Your task to perform on an android device: Go to Wikipedia Image 0: 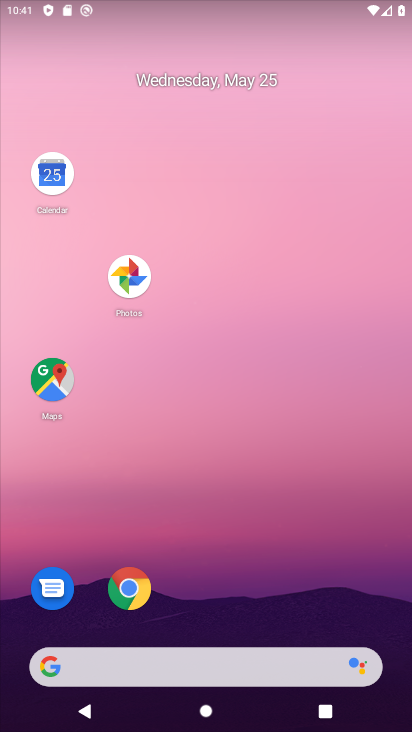
Step 0: click (129, 597)
Your task to perform on an android device: Go to Wikipedia Image 1: 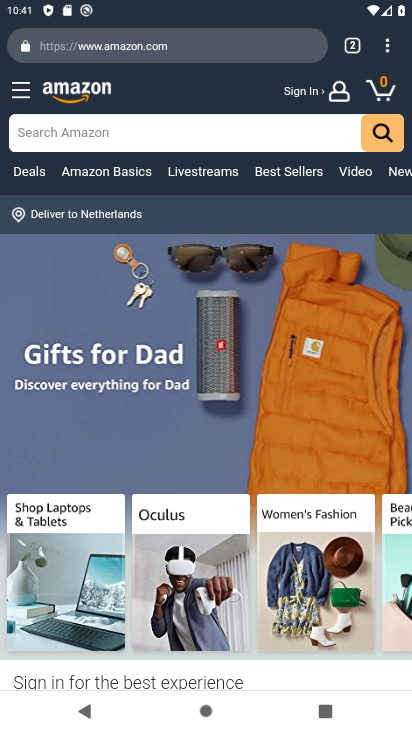
Step 1: click (351, 51)
Your task to perform on an android device: Go to Wikipedia Image 2: 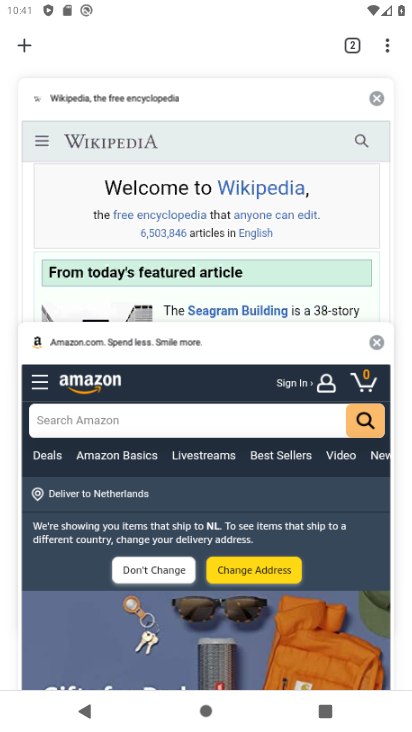
Step 2: click (180, 147)
Your task to perform on an android device: Go to Wikipedia Image 3: 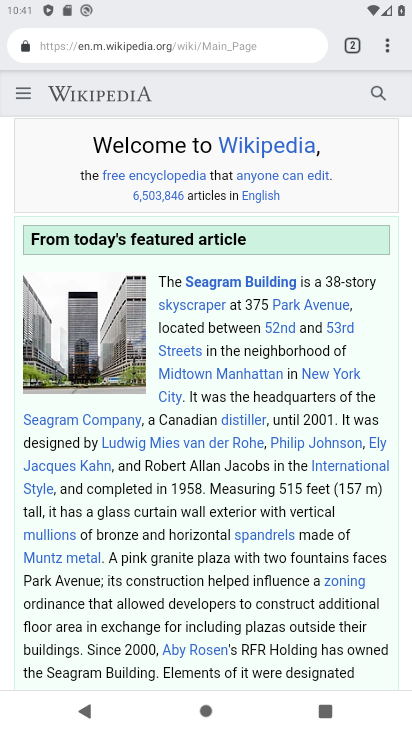
Step 3: task complete